Your task to perform on an android device: Go to location settings Image 0: 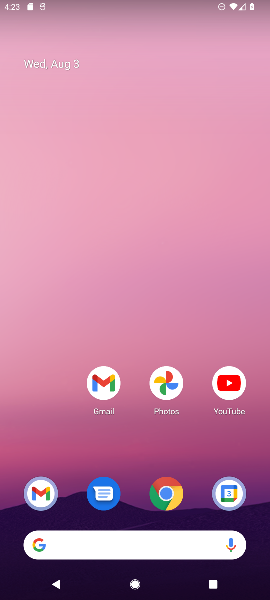
Step 0: drag from (52, 415) to (92, 46)
Your task to perform on an android device: Go to location settings Image 1: 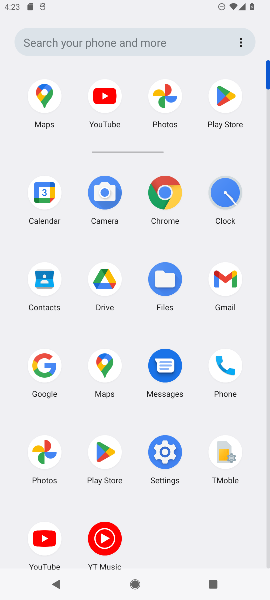
Step 1: click (167, 445)
Your task to perform on an android device: Go to location settings Image 2: 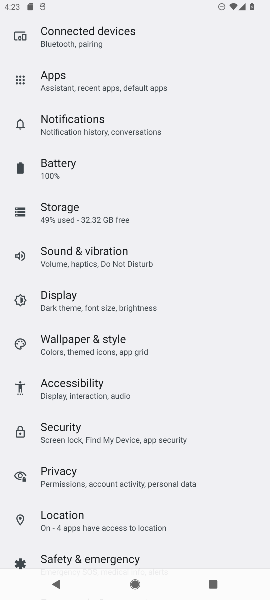
Step 2: drag from (212, 459) to (217, 343)
Your task to perform on an android device: Go to location settings Image 3: 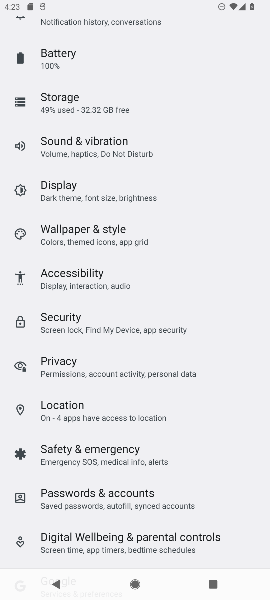
Step 3: drag from (230, 460) to (225, 295)
Your task to perform on an android device: Go to location settings Image 4: 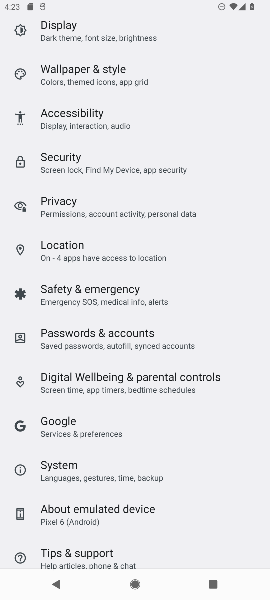
Step 4: drag from (214, 463) to (224, 311)
Your task to perform on an android device: Go to location settings Image 5: 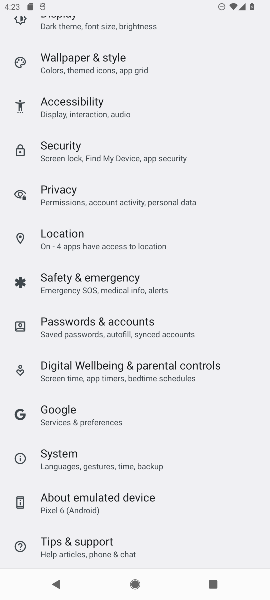
Step 5: click (174, 242)
Your task to perform on an android device: Go to location settings Image 6: 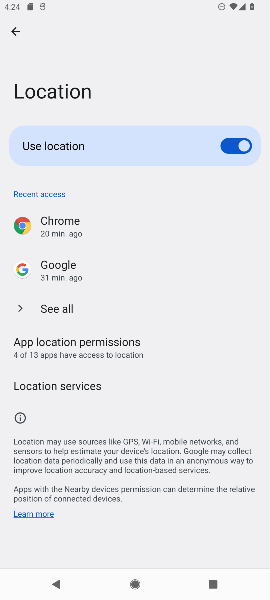
Step 6: task complete